Your task to perform on an android device: empty trash in google photos Image 0: 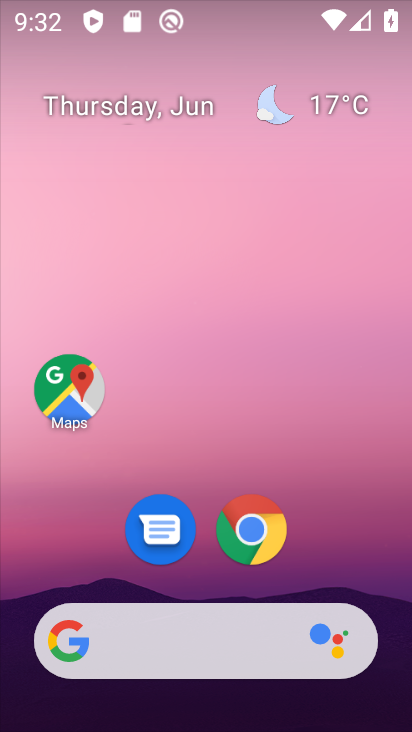
Step 0: drag from (378, 572) to (303, 68)
Your task to perform on an android device: empty trash in google photos Image 1: 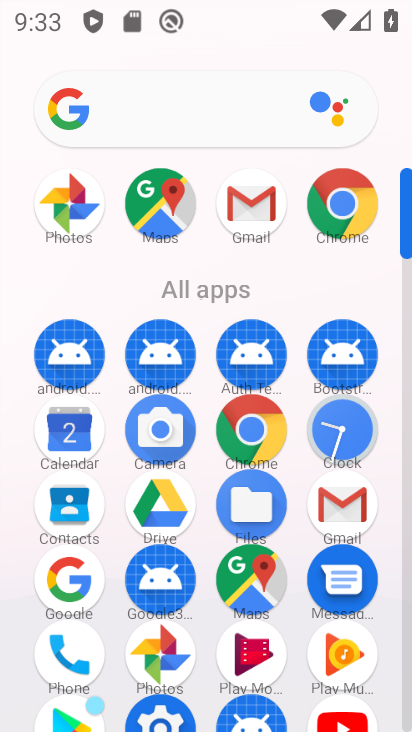
Step 1: click (405, 678)
Your task to perform on an android device: empty trash in google photos Image 2: 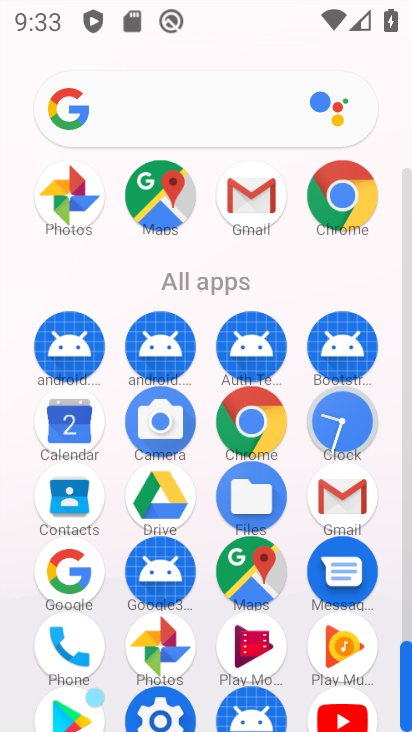
Step 2: click (159, 642)
Your task to perform on an android device: empty trash in google photos Image 3: 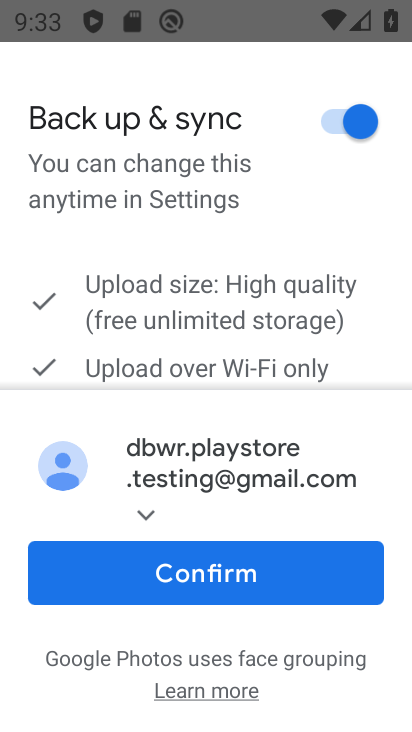
Step 3: click (218, 559)
Your task to perform on an android device: empty trash in google photos Image 4: 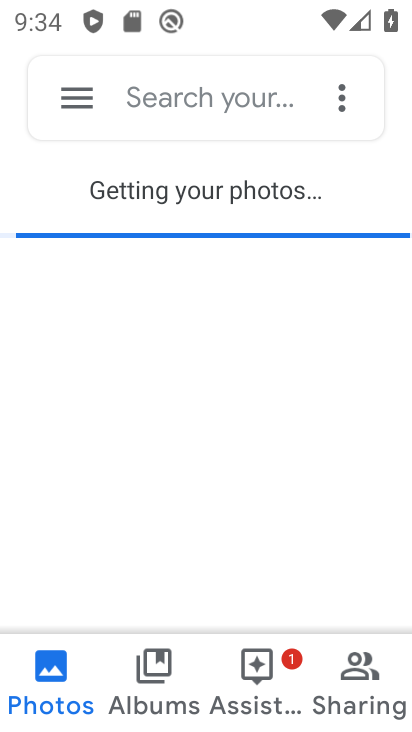
Step 4: click (76, 103)
Your task to perform on an android device: empty trash in google photos Image 5: 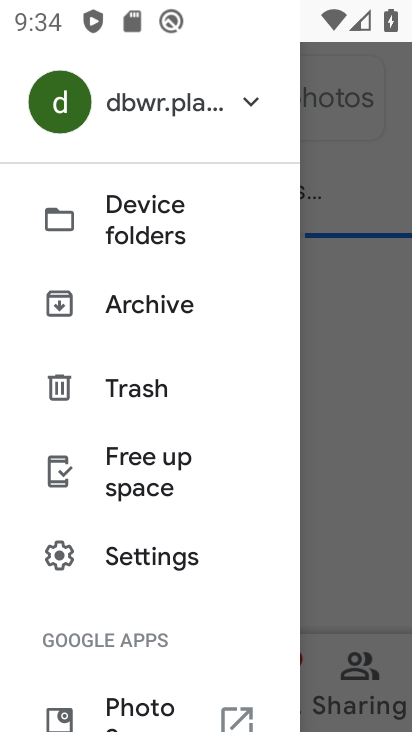
Step 5: click (135, 392)
Your task to perform on an android device: empty trash in google photos Image 6: 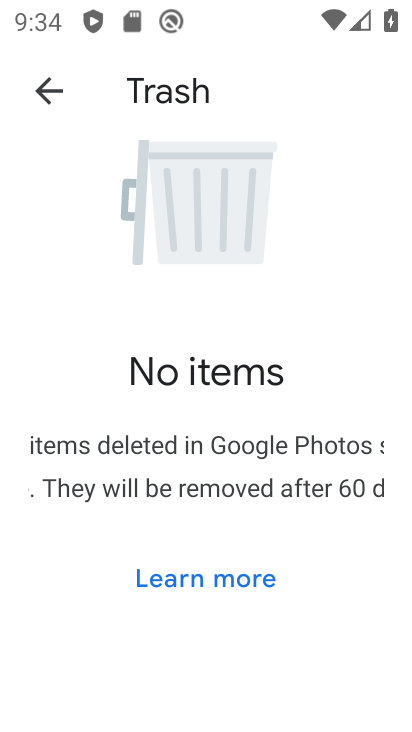
Step 6: task complete